Your task to perform on an android device: delete location history Image 0: 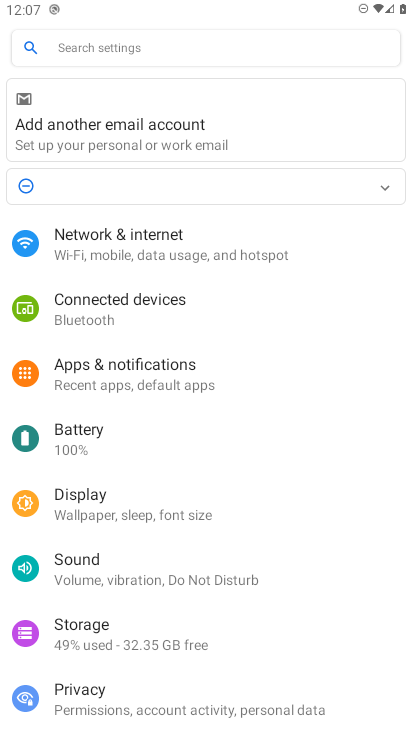
Step 0: press home button
Your task to perform on an android device: delete location history Image 1: 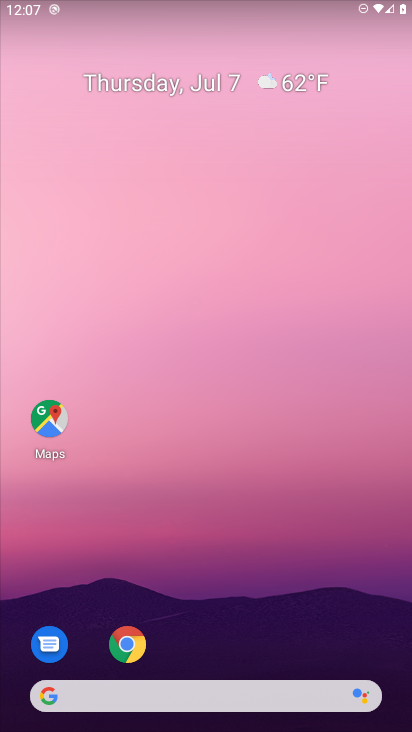
Step 1: drag from (252, 589) to (312, 0)
Your task to perform on an android device: delete location history Image 2: 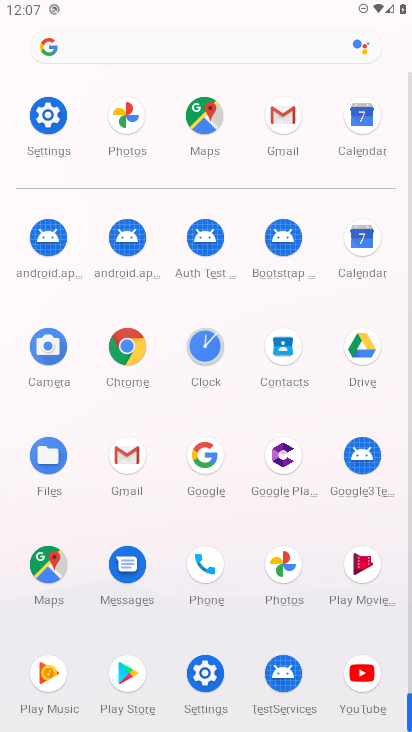
Step 2: click (51, 107)
Your task to perform on an android device: delete location history Image 3: 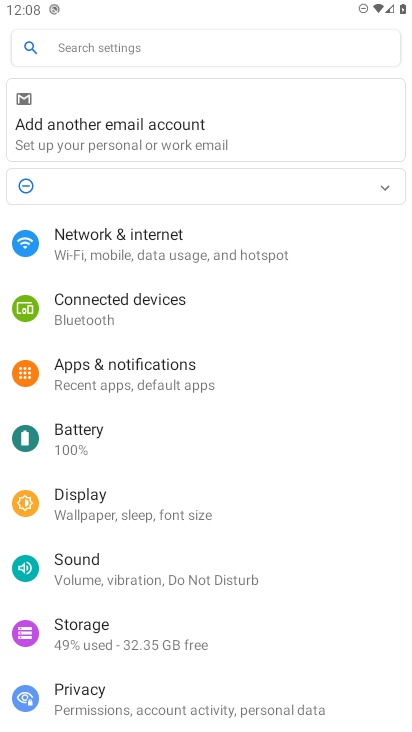
Step 3: drag from (152, 667) to (168, 254)
Your task to perform on an android device: delete location history Image 4: 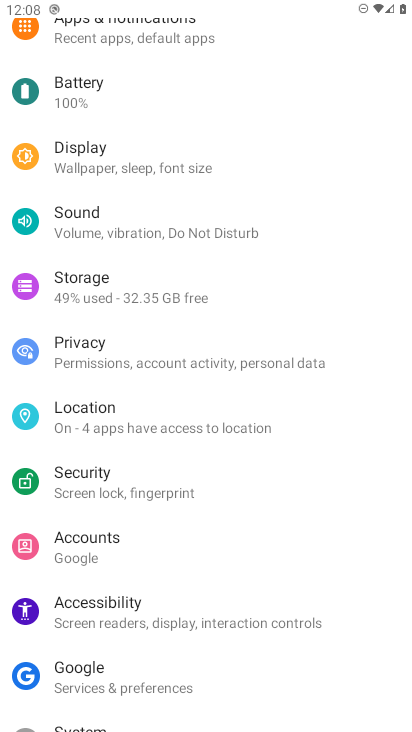
Step 4: click (88, 421)
Your task to perform on an android device: delete location history Image 5: 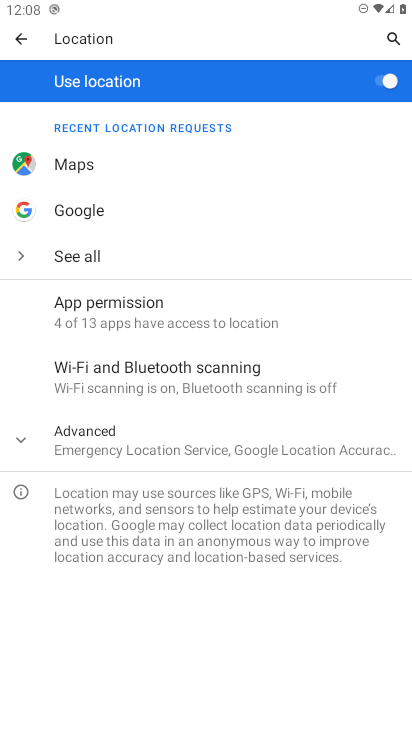
Step 5: click (29, 435)
Your task to perform on an android device: delete location history Image 6: 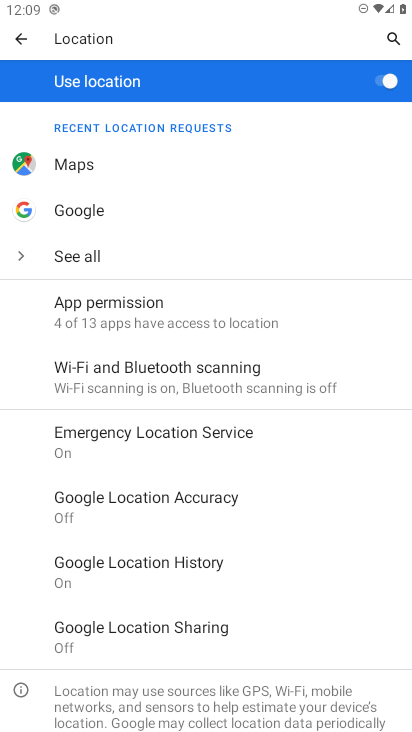
Step 6: click (176, 569)
Your task to perform on an android device: delete location history Image 7: 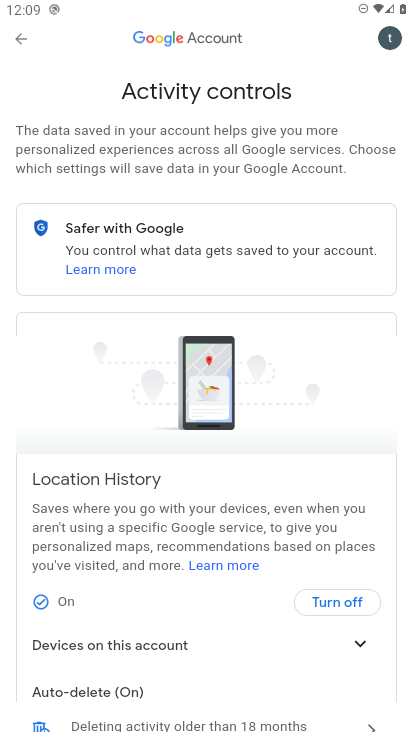
Step 7: drag from (237, 653) to (199, 440)
Your task to perform on an android device: delete location history Image 8: 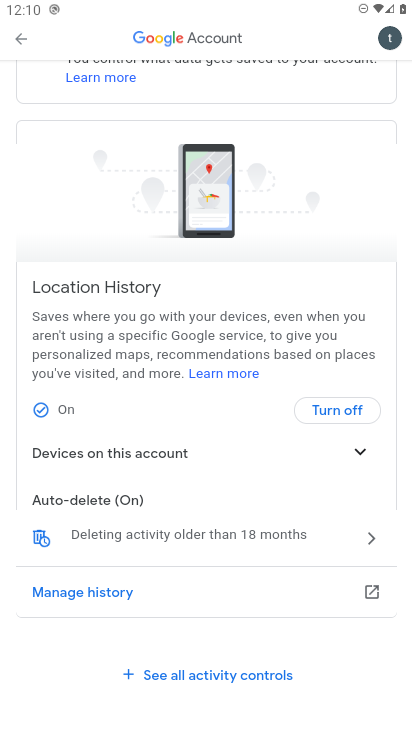
Step 8: click (40, 533)
Your task to perform on an android device: delete location history Image 9: 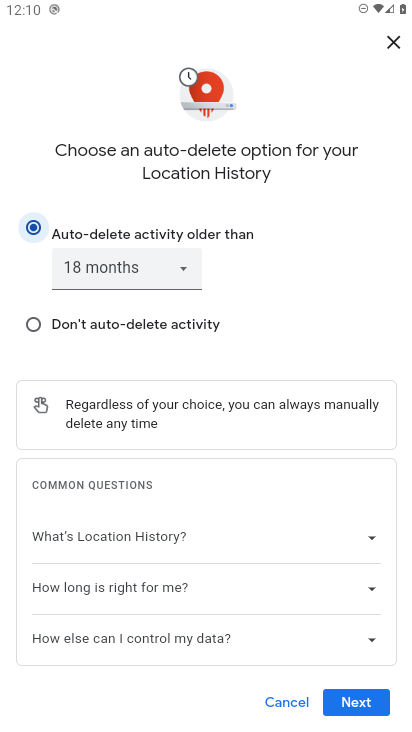
Step 9: click (367, 686)
Your task to perform on an android device: delete location history Image 10: 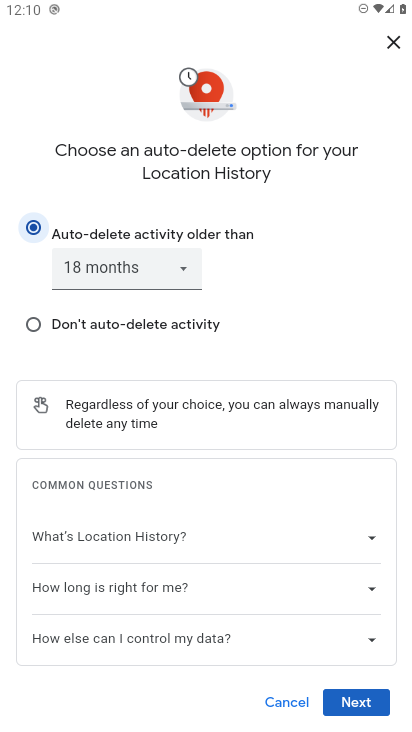
Step 10: click (367, 698)
Your task to perform on an android device: delete location history Image 11: 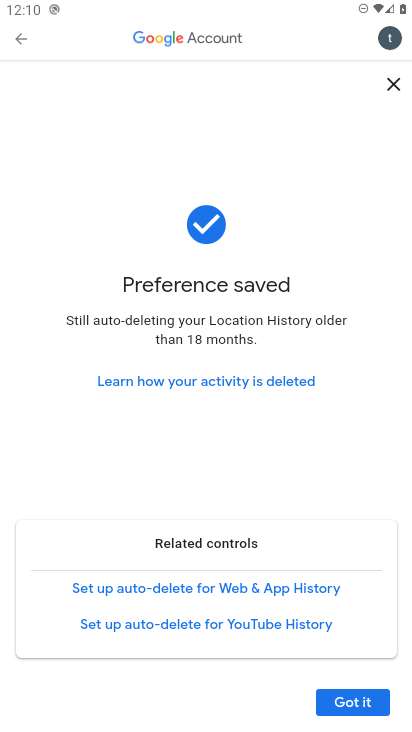
Step 11: click (373, 707)
Your task to perform on an android device: delete location history Image 12: 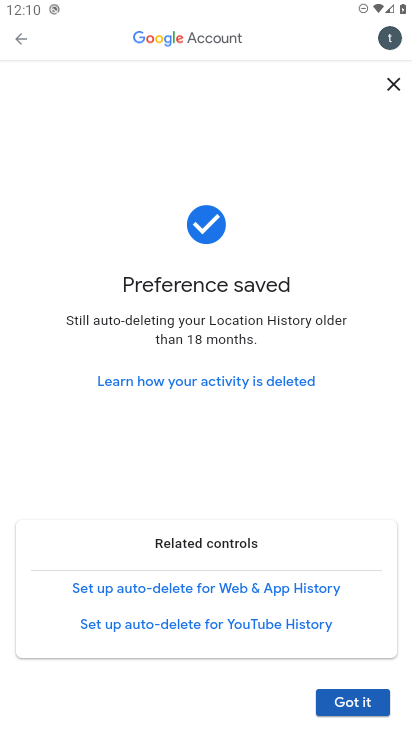
Step 12: click (350, 697)
Your task to perform on an android device: delete location history Image 13: 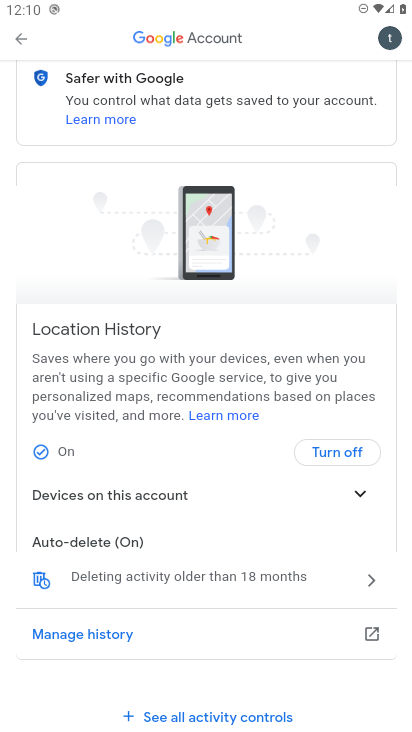
Step 13: task complete